Your task to perform on an android device: Search for seafood restaurants on Google Maps Image 0: 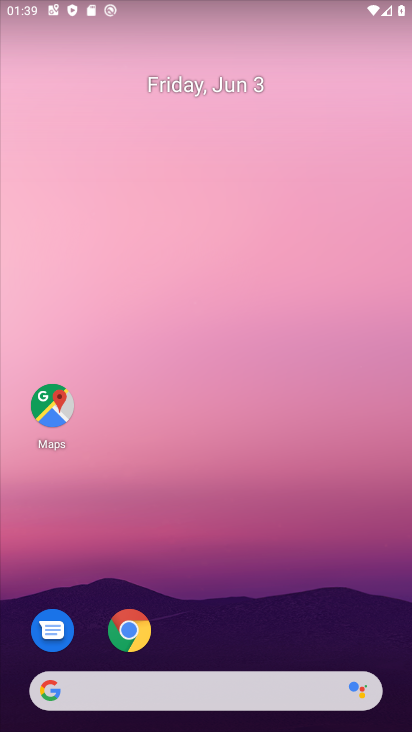
Step 0: click (48, 408)
Your task to perform on an android device: Search for seafood restaurants on Google Maps Image 1: 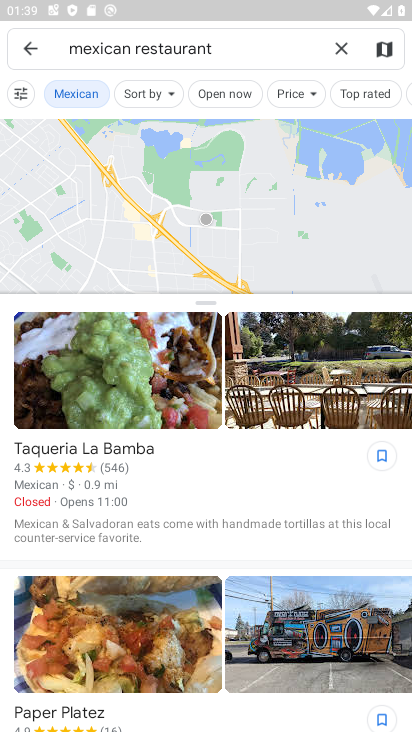
Step 1: click (349, 51)
Your task to perform on an android device: Search for seafood restaurants on Google Maps Image 2: 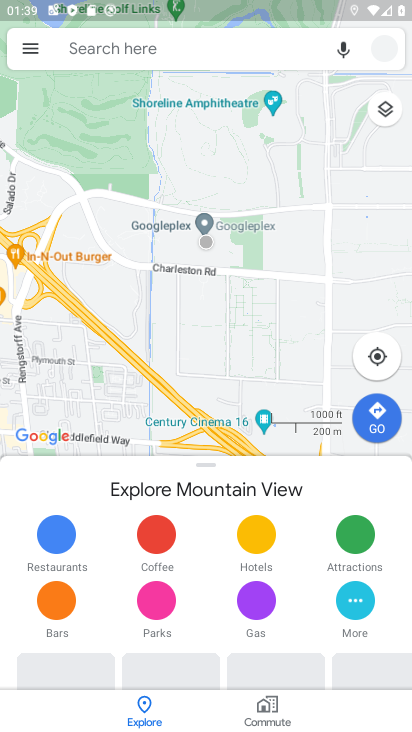
Step 2: click (186, 57)
Your task to perform on an android device: Search for seafood restaurants on Google Maps Image 3: 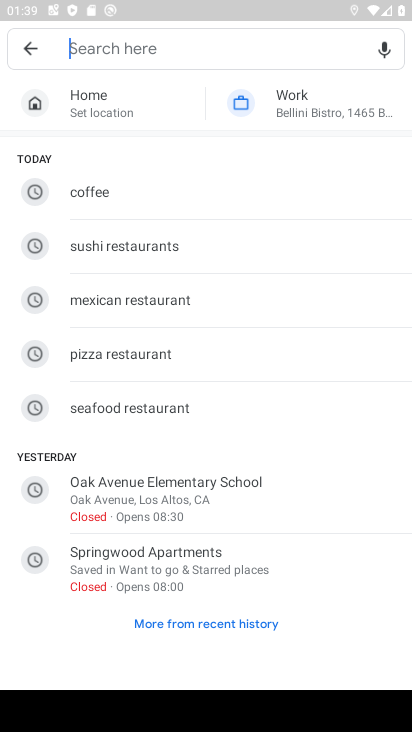
Step 3: click (160, 408)
Your task to perform on an android device: Search for seafood restaurants on Google Maps Image 4: 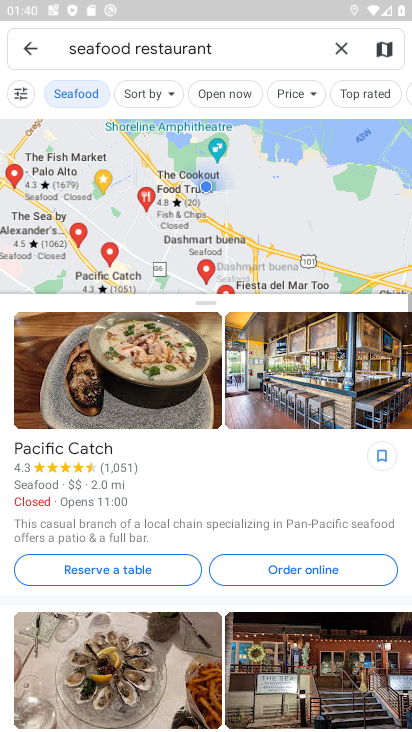
Step 4: task complete